Your task to perform on an android device: find photos in the google photos app Image 0: 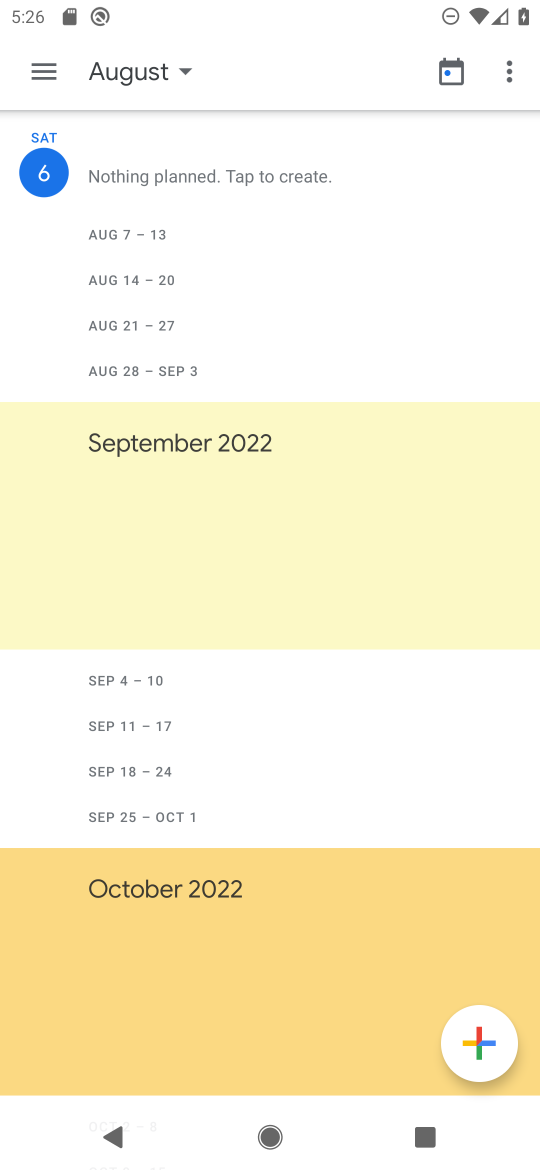
Step 0: press home button
Your task to perform on an android device: find photos in the google photos app Image 1: 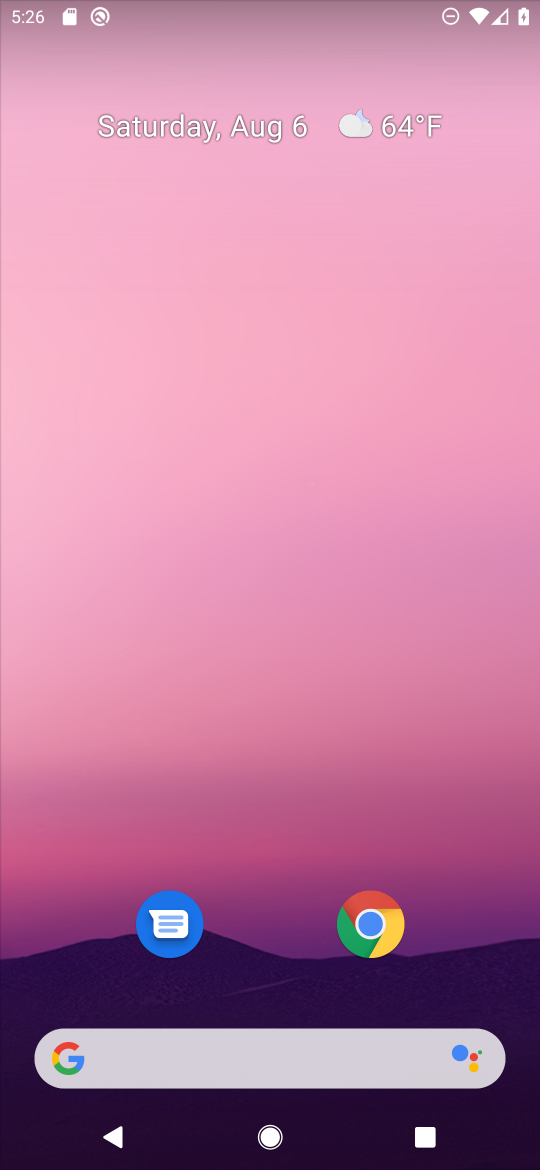
Step 1: drag from (272, 874) to (269, 47)
Your task to perform on an android device: find photos in the google photos app Image 2: 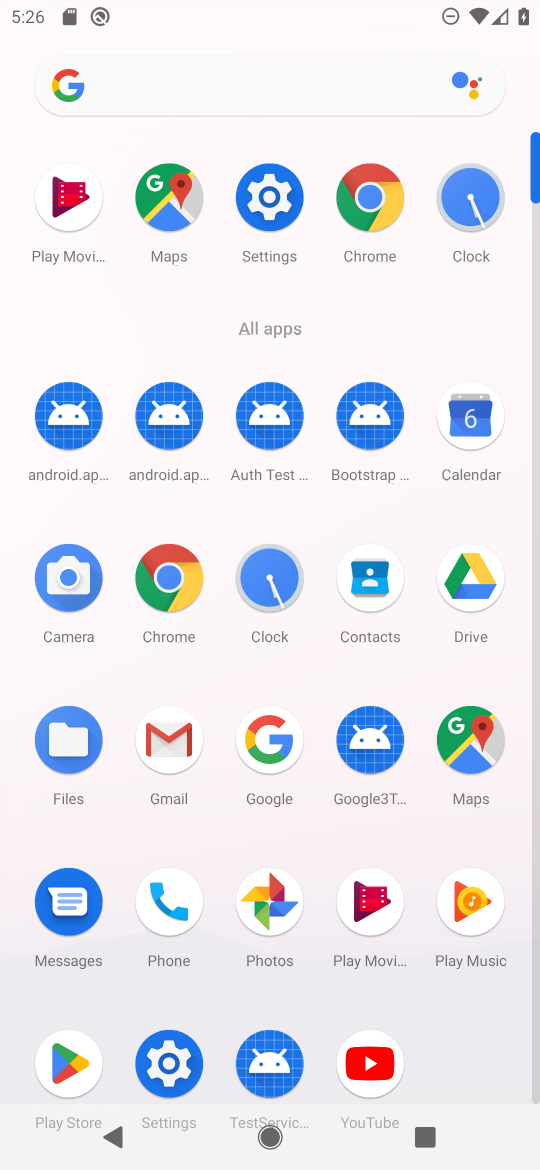
Step 2: click (268, 897)
Your task to perform on an android device: find photos in the google photos app Image 3: 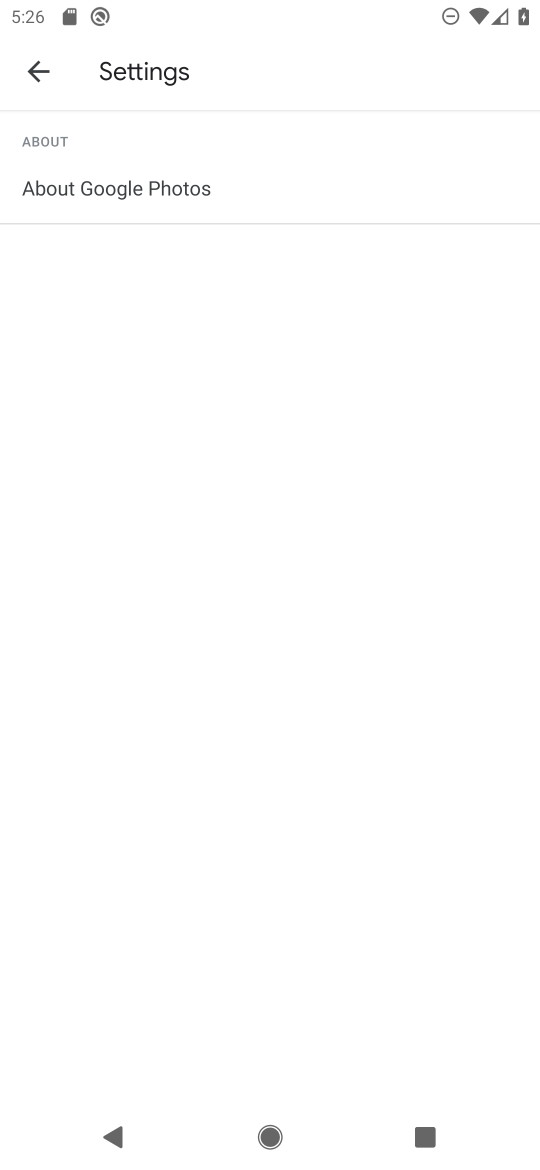
Step 3: click (38, 70)
Your task to perform on an android device: find photos in the google photos app Image 4: 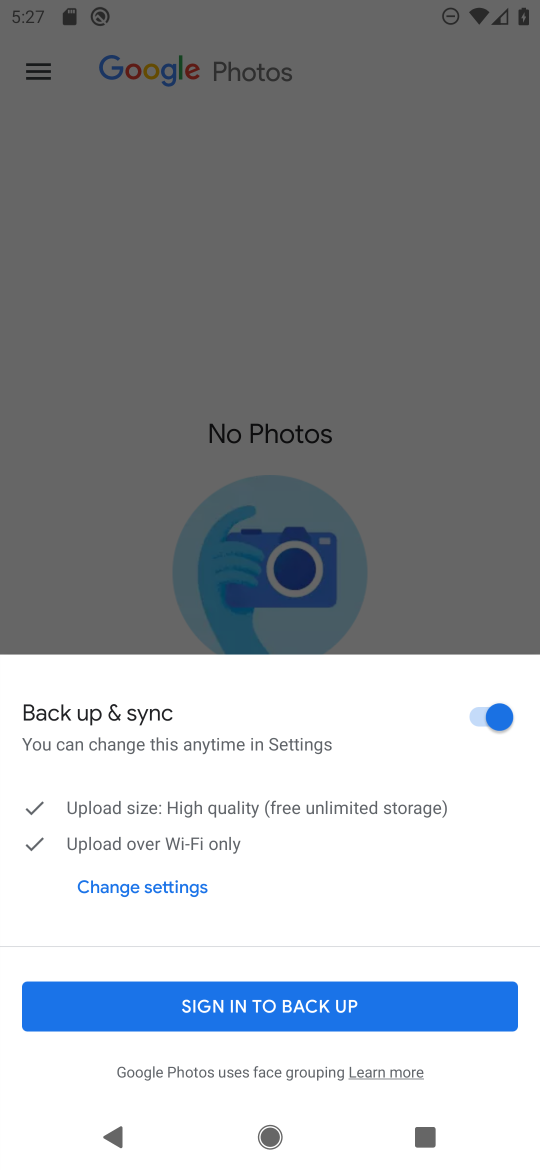
Step 4: click (256, 999)
Your task to perform on an android device: find photos in the google photos app Image 5: 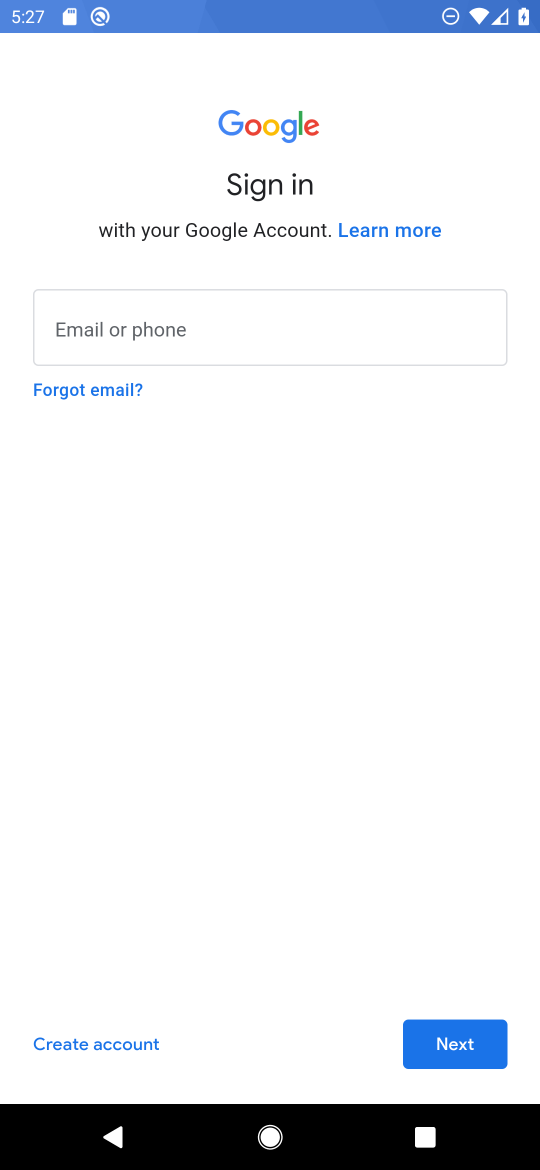
Step 5: task complete